Your task to perform on an android device: Open sound settings Image 0: 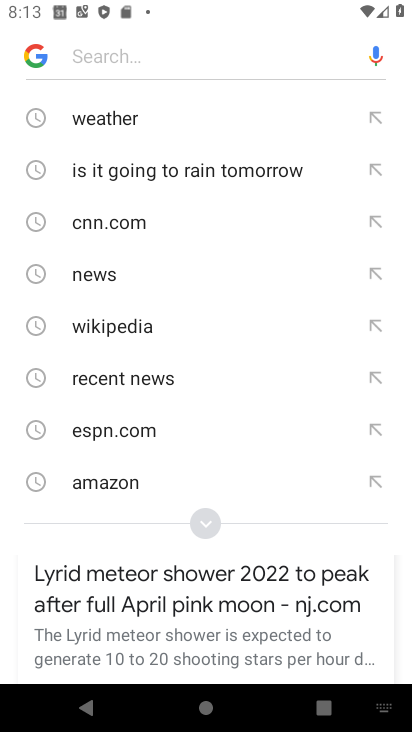
Step 0: press back button
Your task to perform on an android device: Open sound settings Image 1: 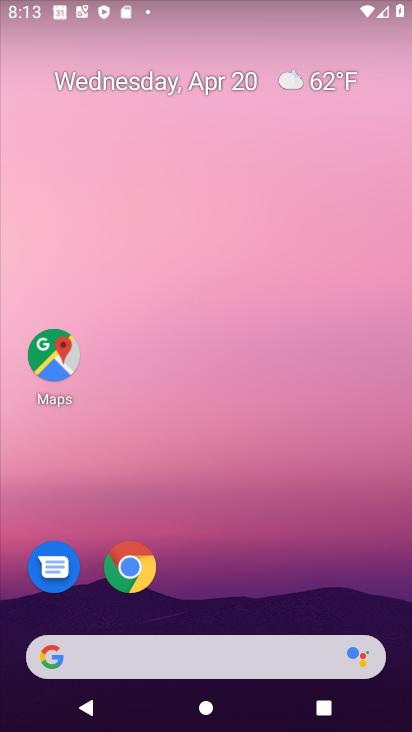
Step 1: drag from (302, 550) to (267, 31)
Your task to perform on an android device: Open sound settings Image 2: 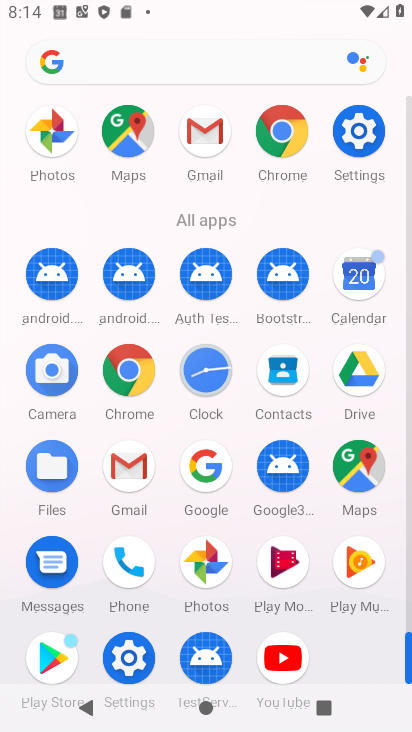
Step 2: click (362, 128)
Your task to perform on an android device: Open sound settings Image 3: 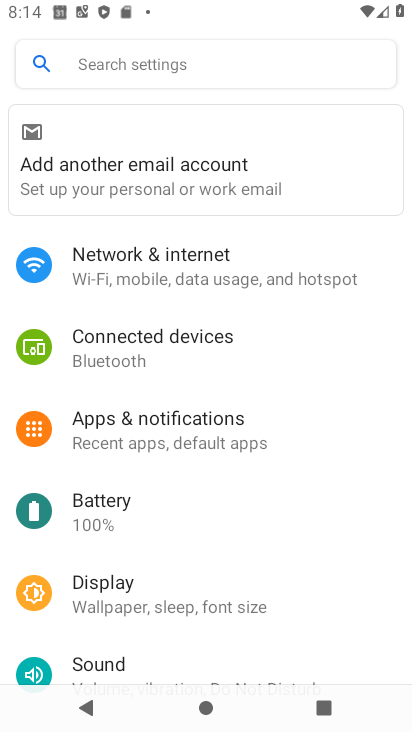
Step 3: click (135, 662)
Your task to perform on an android device: Open sound settings Image 4: 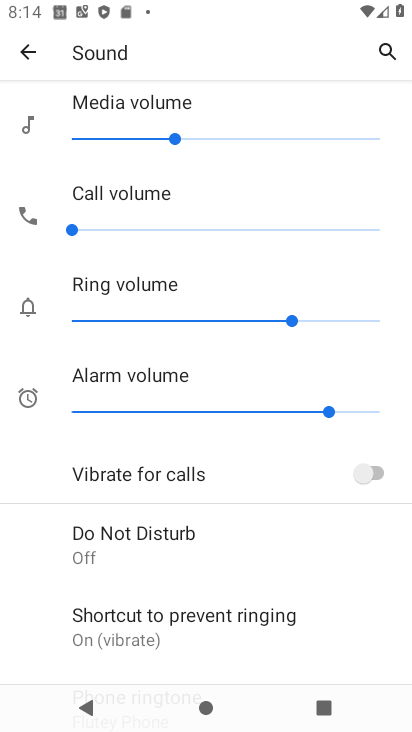
Step 4: task complete